Your task to perform on an android device: change alarm snooze length Image 0: 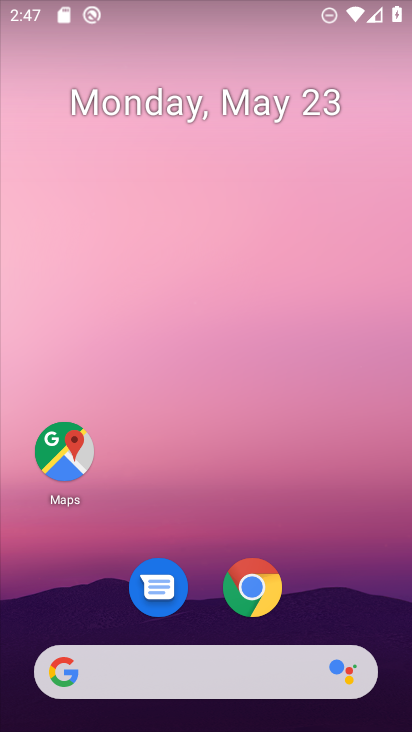
Step 0: drag from (195, 534) to (300, 165)
Your task to perform on an android device: change alarm snooze length Image 1: 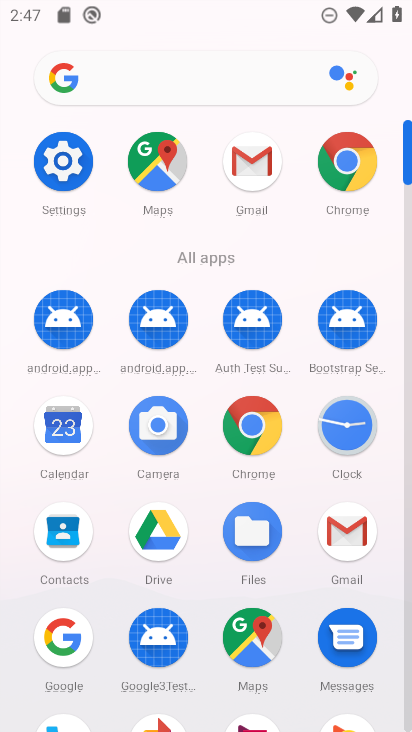
Step 1: click (344, 450)
Your task to perform on an android device: change alarm snooze length Image 2: 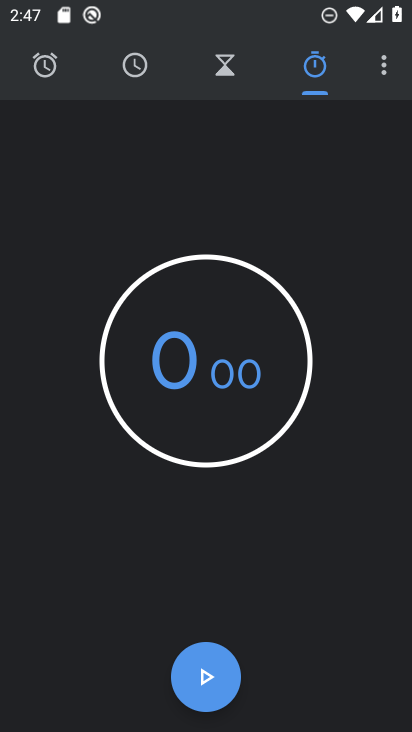
Step 2: click (386, 66)
Your task to perform on an android device: change alarm snooze length Image 3: 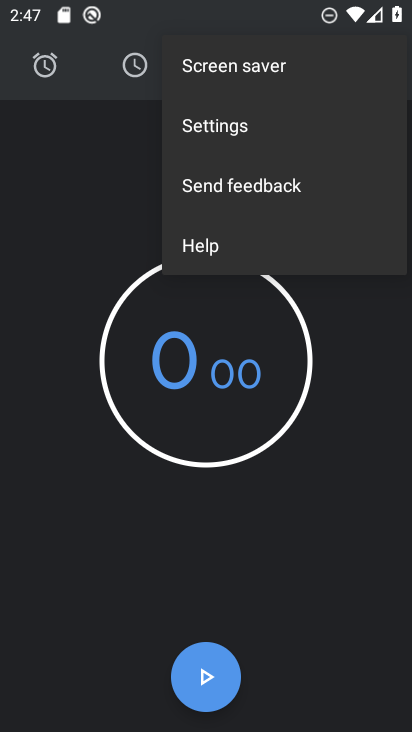
Step 3: click (246, 129)
Your task to perform on an android device: change alarm snooze length Image 4: 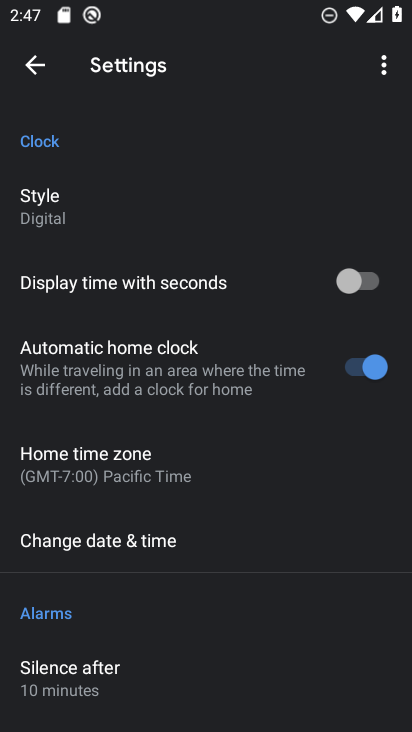
Step 4: drag from (180, 641) to (293, 171)
Your task to perform on an android device: change alarm snooze length Image 5: 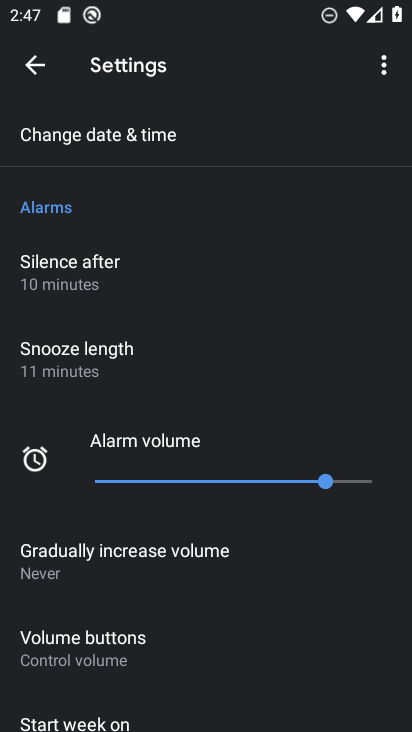
Step 5: click (103, 360)
Your task to perform on an android device: change alarm snooze length Image 6: 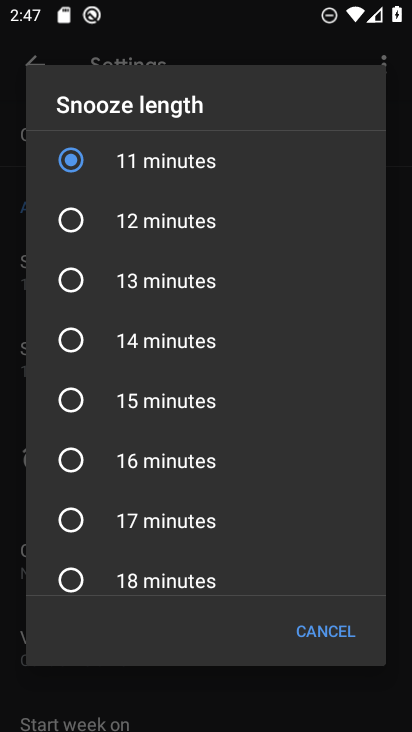
Step 6: click (159, 237)
Your task to perform on an android device: change alarm snooze length Image 7: 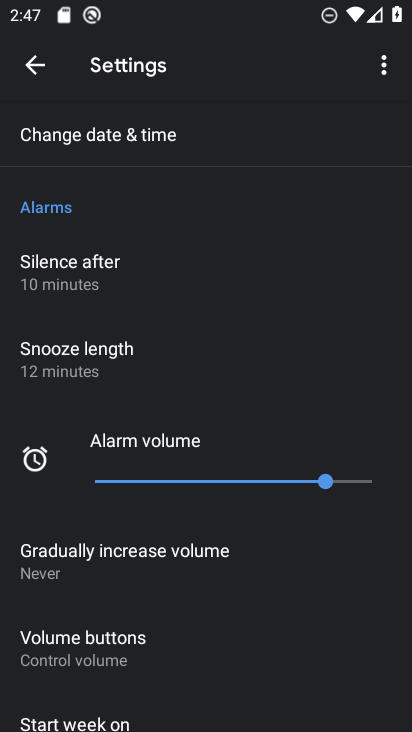
Step 7: task complete